Your task to perform on an android device: Open sound settings Image 0: 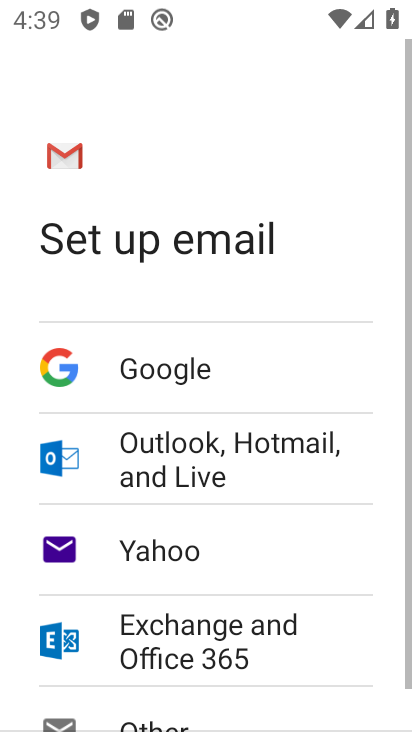
Step 0: press back button
Your task to perform on an android device: Open sound settings Image 1: 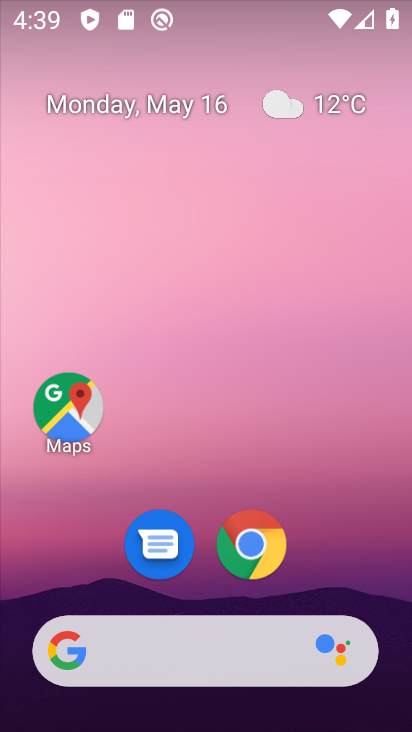
Step 1: drag from (342, 575) to (202, 78)
Your task to perform on an android device: Open sound settings Image 2: 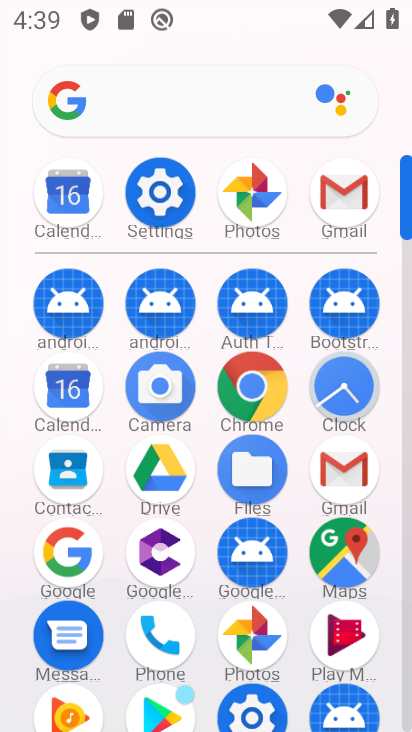
Step 2: click (161, 192)
Your task to perform on an android device: Open sound settings Image 3: 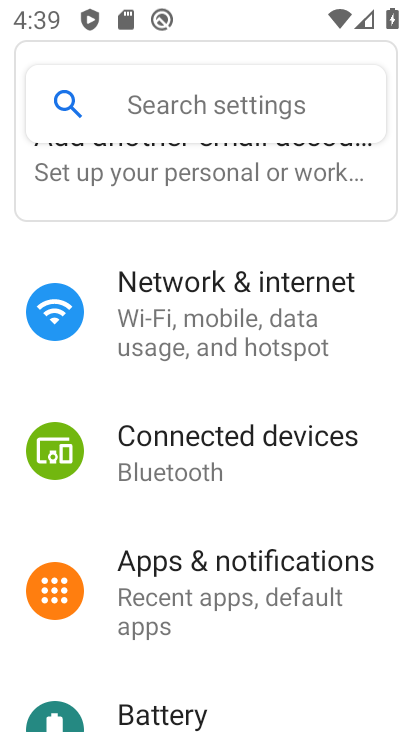
Step 3: drag from (210, 665) to (209, 442)
Your task to perform on an android device: Open sound settings Image 4: 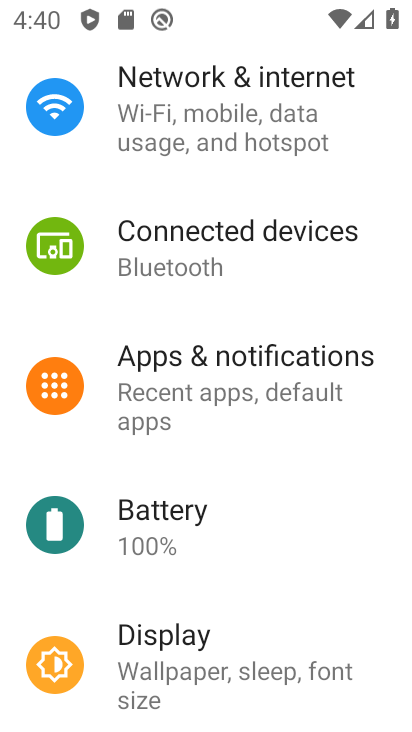
Step 4: drag from (181, 561) to (177, 405)
Your task to perform on an android device: Open sound settings Image 5: 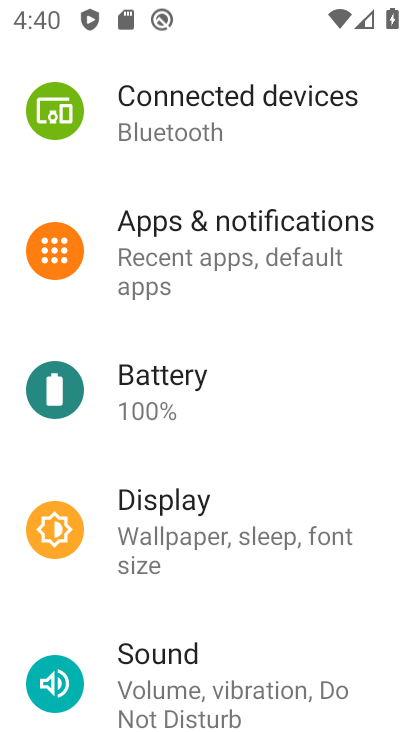
Step 5: drag from (140, 604) to (202, 423)
Your task to perform on an android device: Open sound settings Image 6: 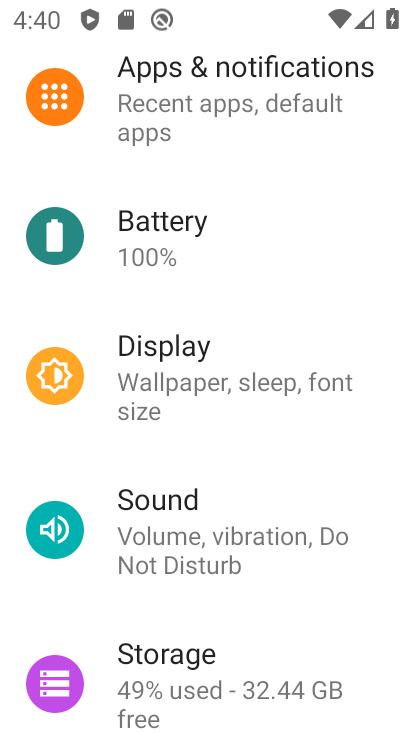
Step 6: click (153, 511)
Your task to perform on an android device: Open sound settings Image 7: 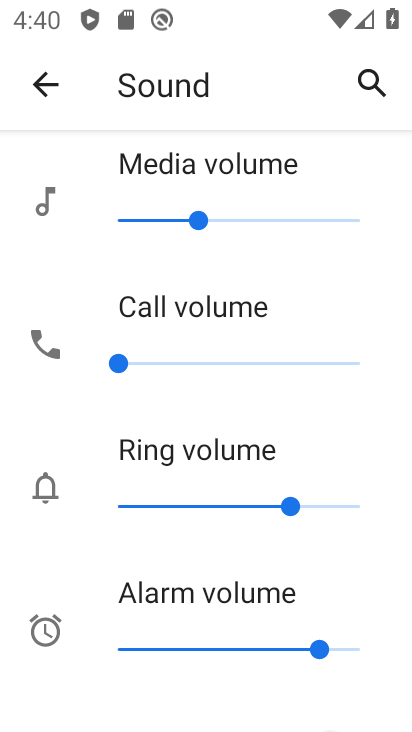
Step 7: task complete